Your task to perform on an android device: Open sound settings Image 0: 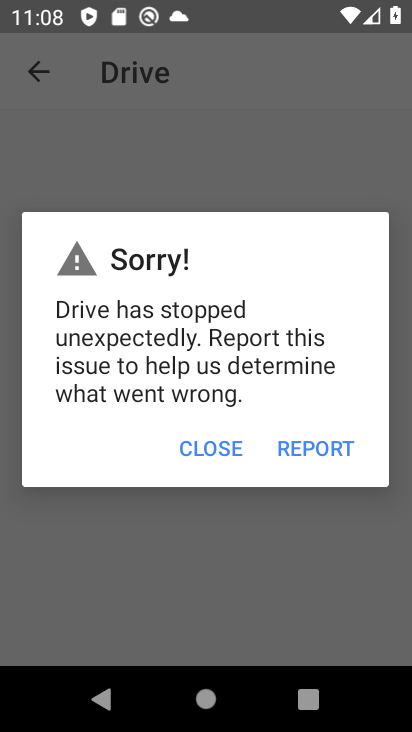
Step 0: click (239, 444)
Your task to perform on an android device: Open sound settings Image 1: 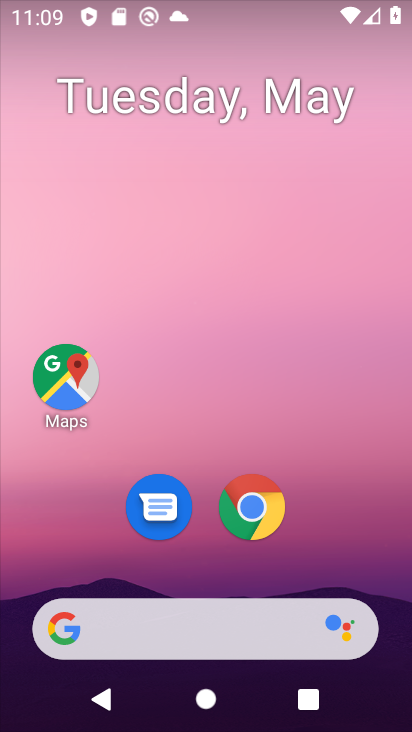
Step 1: drag from (244, 608) to (189, 100)
Your task to perform on an android device: Open sound settings Image 2: 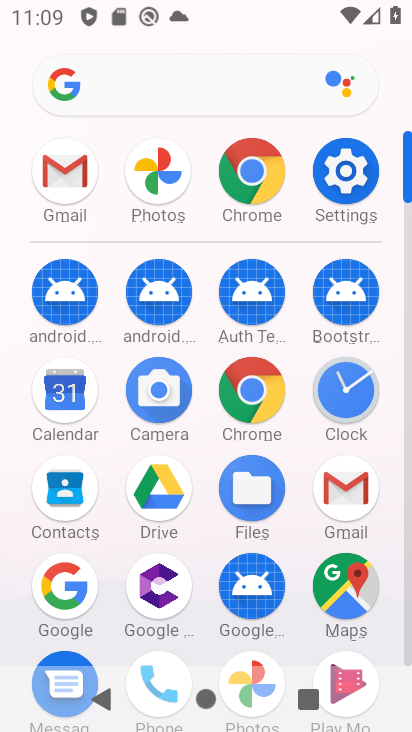
Step 2: click (357, 165)
Your task to perform on an android device: Open sound settings Image 3: 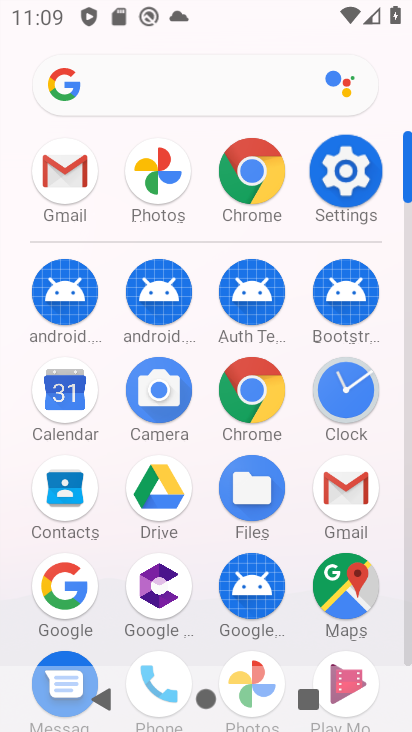
Step 3: click (354, 169)
Your task to perform on an android device: Open sound settings Image 4: 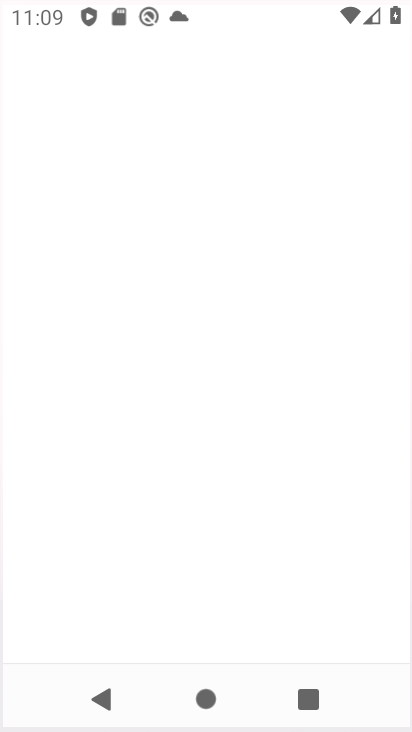
Step 4: click (352, 169)
Your task to perform on an android device: Open sound settings Image 5: 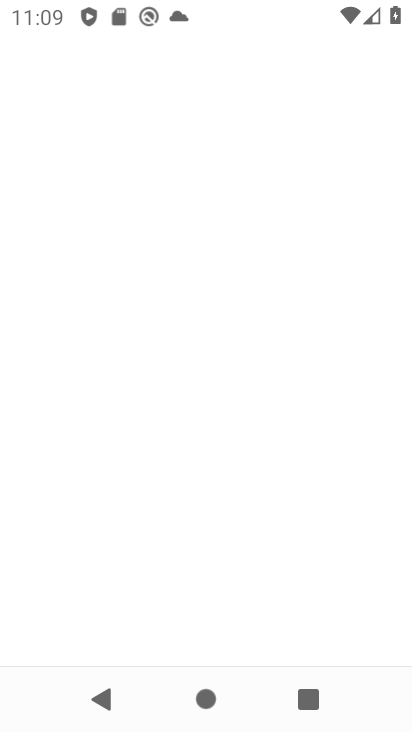
Step 5: click (345, 164)
Your task to perform on an android device: Open sound settings Image 6: 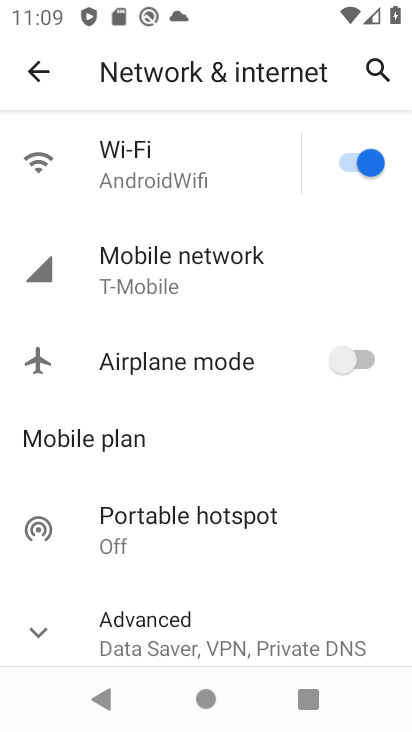
Step 6: click (166, 132)
Your task to perform on an android device: Open sound settings Image 7: 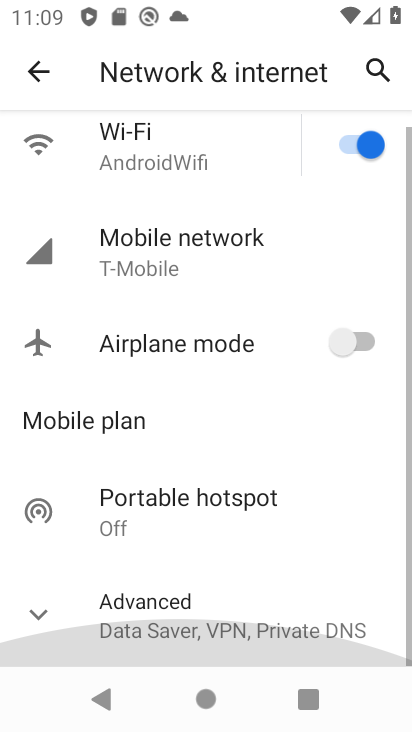
Step 7: click (22, 71)
Your task to perform on an android device: Open sound settings Image 8: 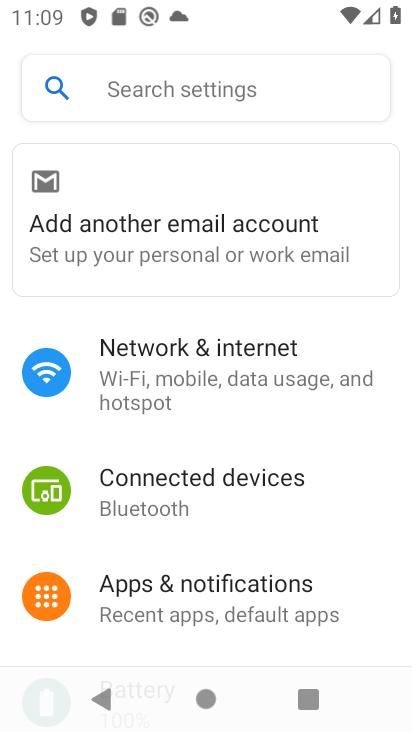
Step 8: drag from (235, 433) to (217, 226)
Your task to perform on an android device: Open sound settings Image 9: 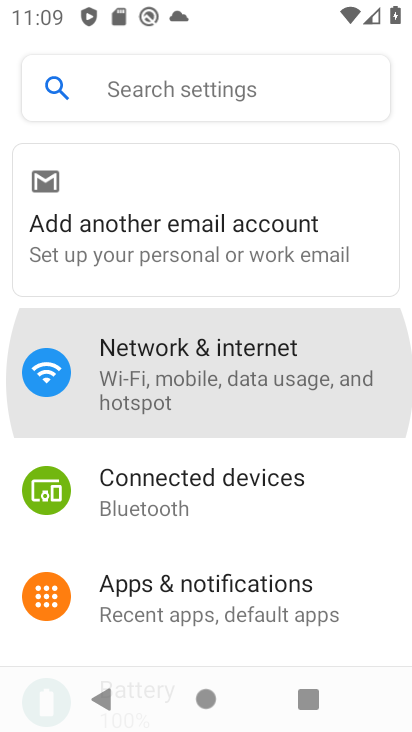
Step 9: drag from (236, 478) to (236, 187)
Your task to perform on an android device: Open sound settings Image 10: 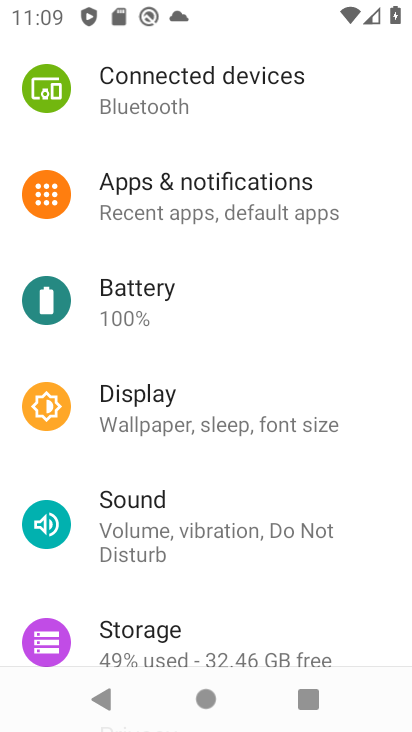
Step 10: drag from (260, 439) to (254, 190)
Your task to perform on an android device: Open sound settings Image 11: 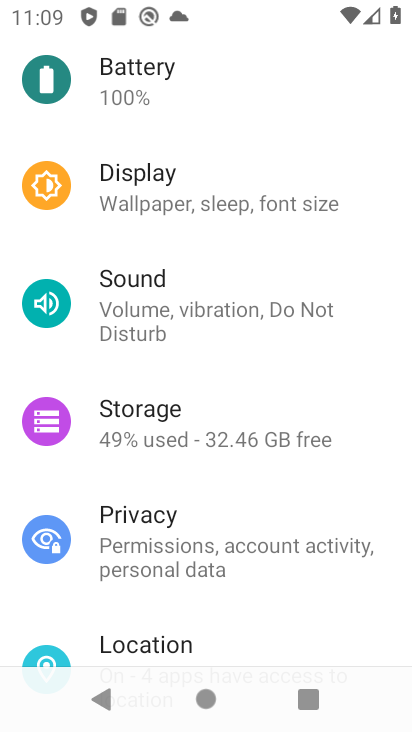
Step 11: drag from (201, 478) to (224, 222)
Your task to perform on an android device: Open sound settings Image 12: 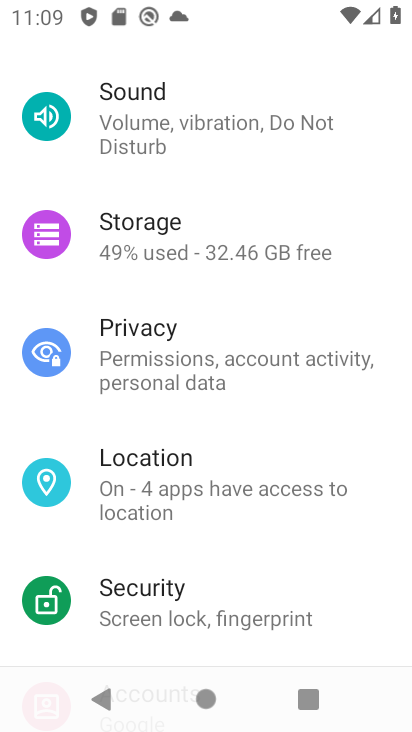
Step 12: click (130, 320)
Your task to perform on an android device: Open sound settings Image 13: 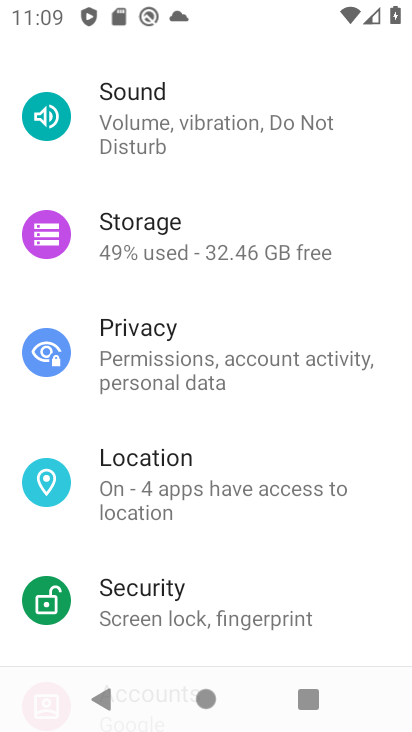
Step 13: click (126, 114)
Your task to perform on an android device: Open sound settings Image 14: 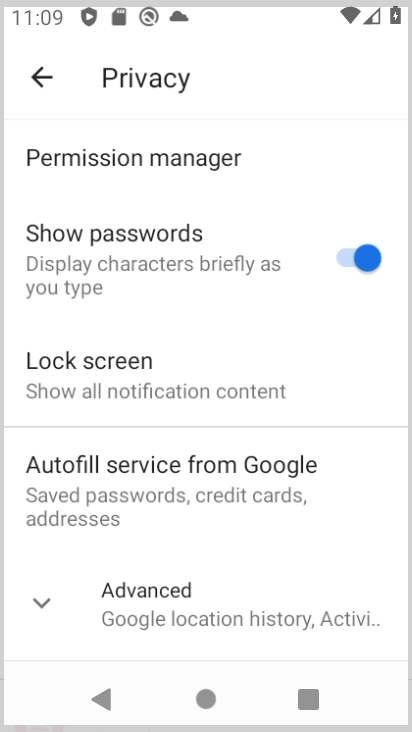
Step 14: click (126, 114)
Your task to perform on an android device: Open sound settings Image 15: 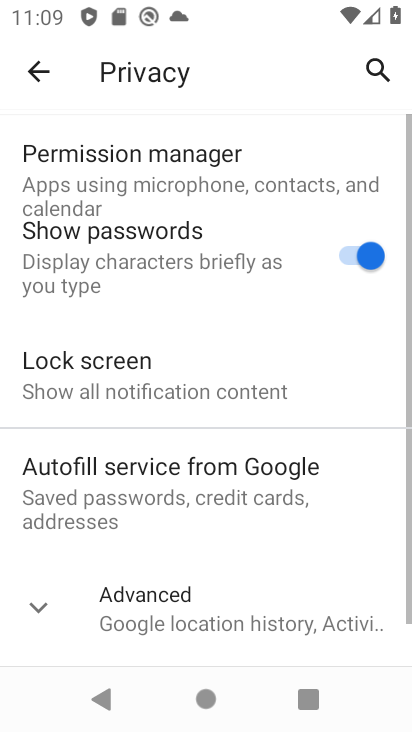
Step 15: click (126, 114)
Your task to perform on an android device: Open sound settings Image 16: 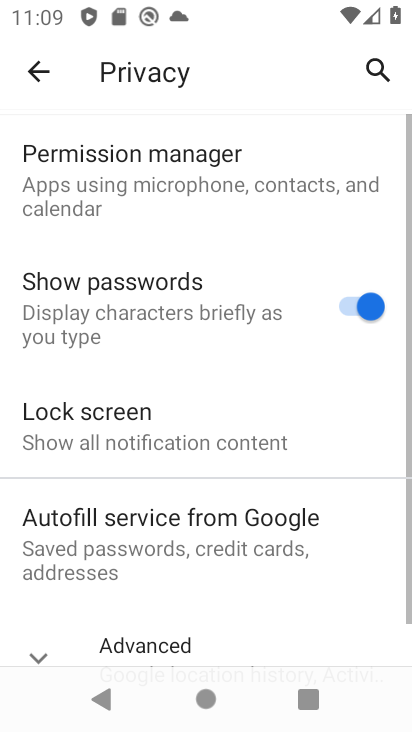
Step 16: click (129, 112)
Your task to perform on an android device: Open sound settings Image 17: 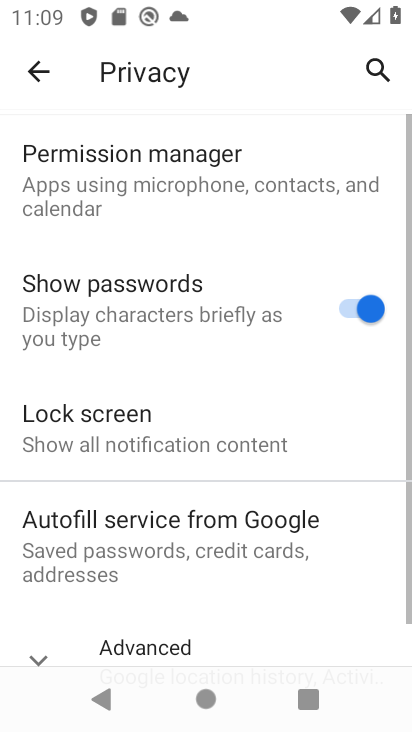
Step 17: task complete